Your task to perform on an android device: toggle data saver in the chrome app Image 0: 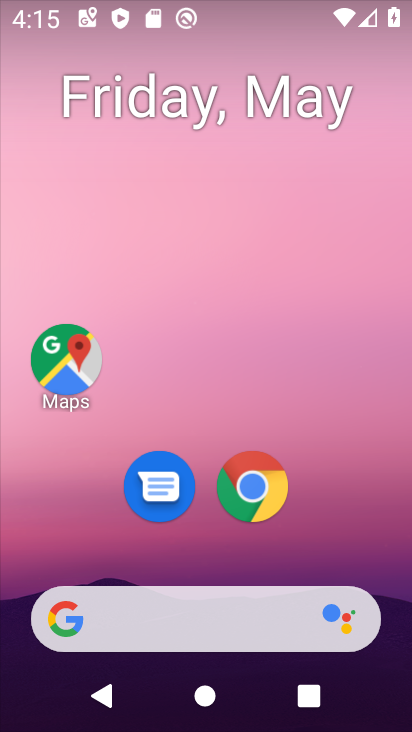
Step 0: drag from (394, 642) to (225, 10)
Your task to perform on an android device: toggle data saver in the chrome app Image 1: 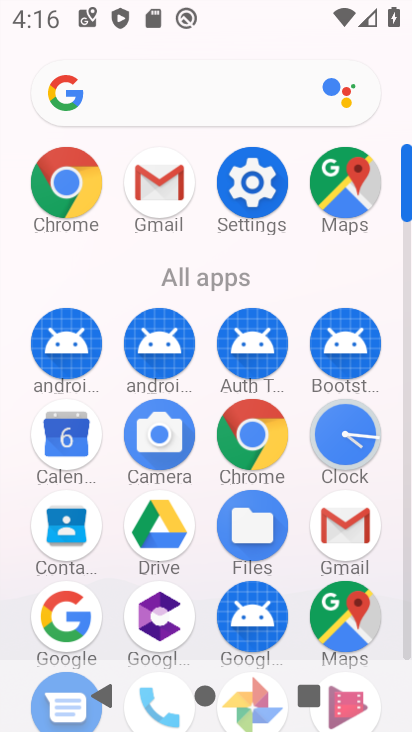
Step 1: drag from (0, 516) to (1, 175)
Your task to perform on an android device: toggle data saver in the chrome app Image 2: 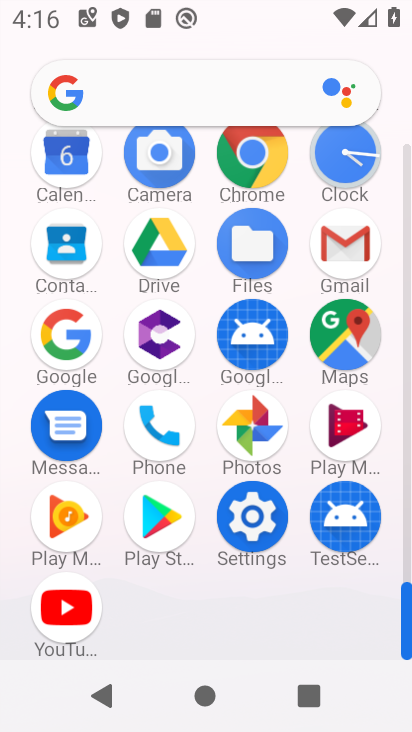
Step 2: click (246, 153)
Your task to perform on an android device: toggle data saver in the chrome app Image 3: 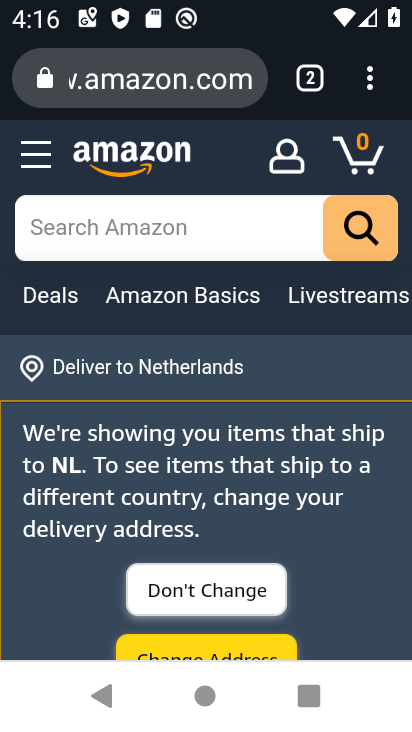
Step 3: drag from (367, 78) to (148, 534)
Your task to perform on an android device: toggle data saver in the chrome app Image 4: 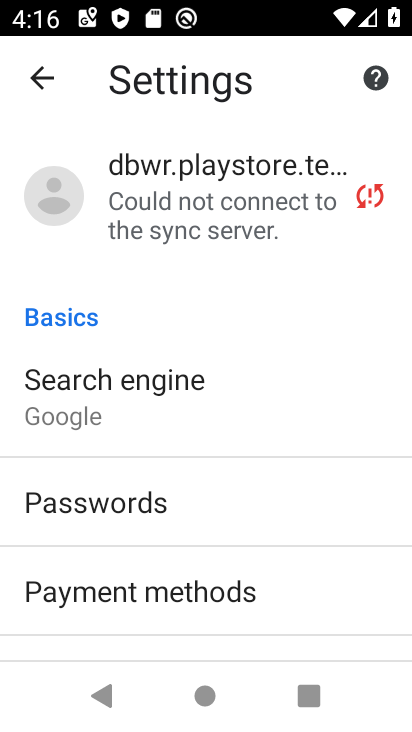
Step 4: drag from (237, 549) to (212, 181)
Your task to perform on an android device: toggle data saver in the chrome app Image 5: 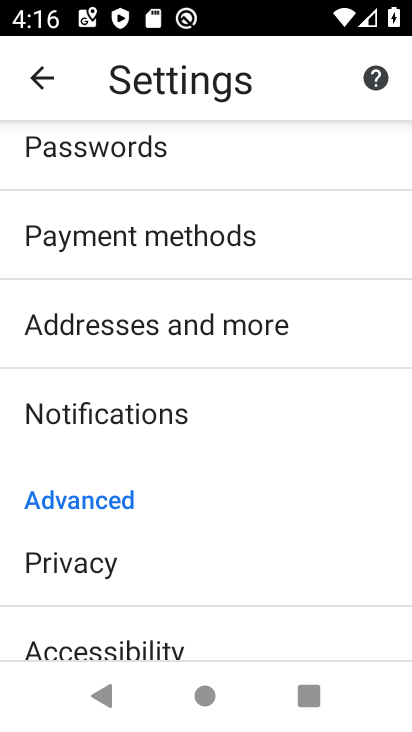
Step 5: drag from (204, 562) to (238, 165)
Your task to perform on an android device: toggle data saver in the chrome app Image 6: 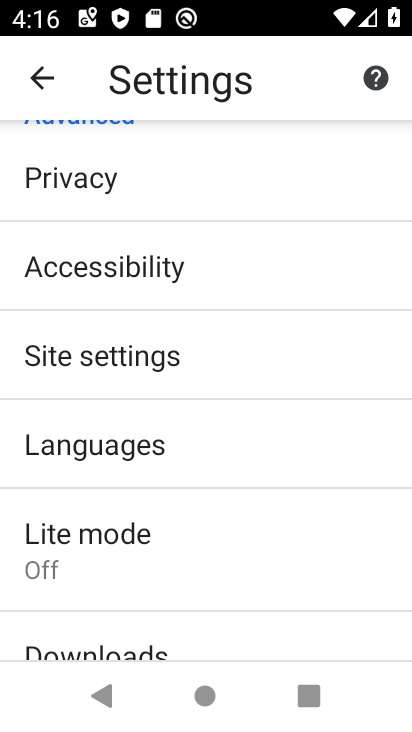
Step 6: drag from (219, 564) to (255, 229)
Your task to perform on an android device: toggle data saver in the chrome app Image 7: 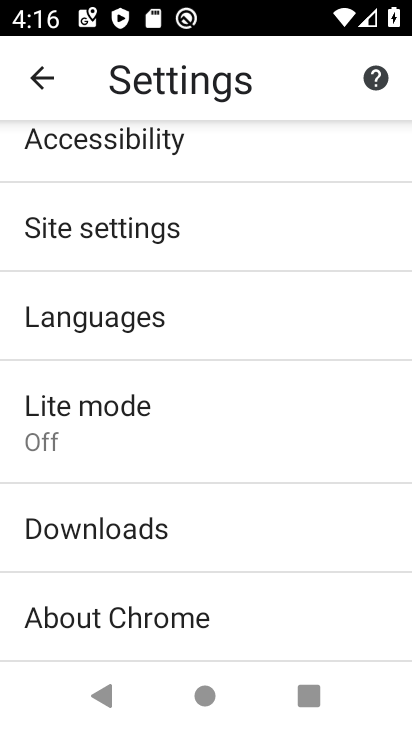
Step 7: drag from (250, 514) to (247, 205)
Your task to perform on an android device: toggle data saver in the chrome app Image 8: 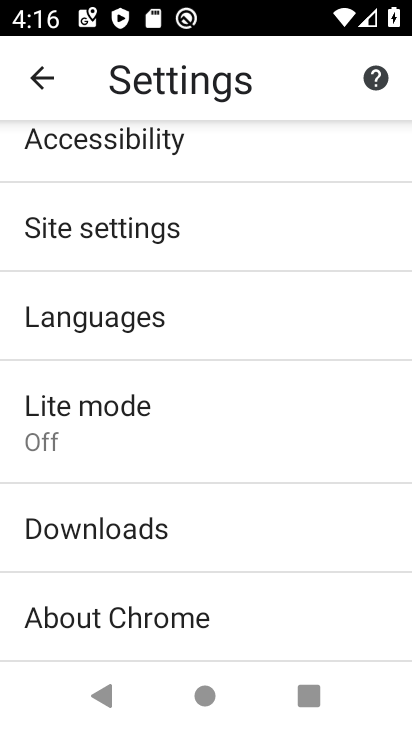
Step 8: drag from (230, 585) to (249, 245)
Your task to perform on an android device: toggle data saver in the chrome app Image 9: 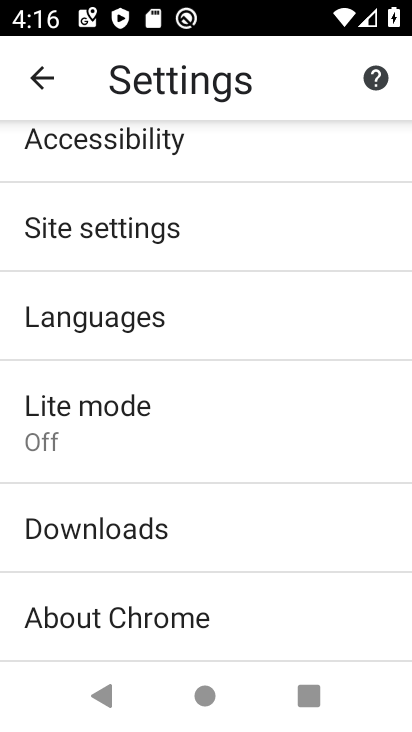
Step 9: click (162, 403)
Your task to perform on an android device: toggle data saver in the chrome app Image 10: 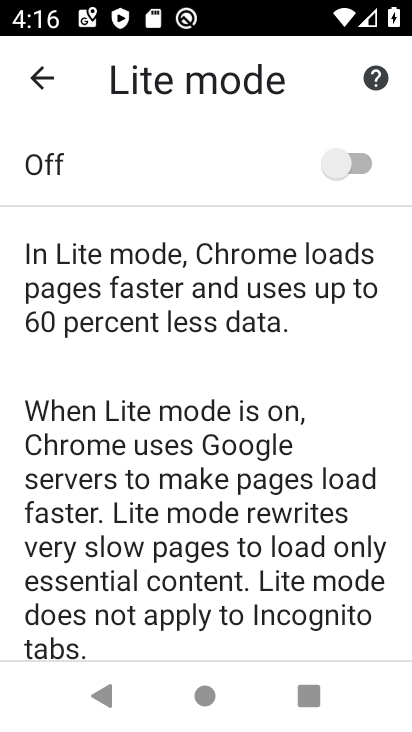
Step 10: click (341, 177)
Your task to perform on an android device: toggle data saver in the chrome app Image 11: 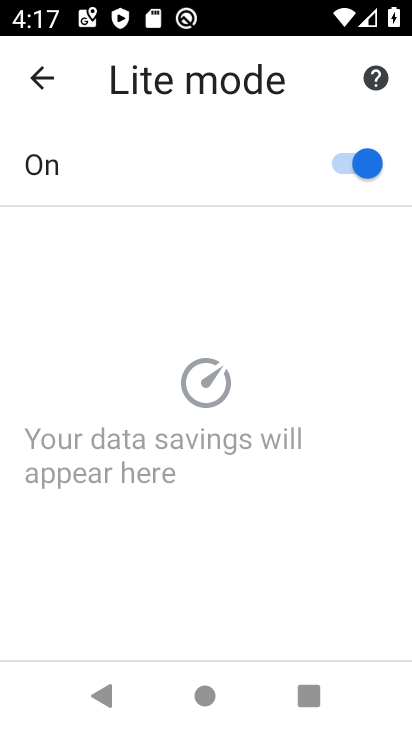
Step 11: task complete